Your task to perform on an android device: Search for Italian restaurants on Maps Image 0: 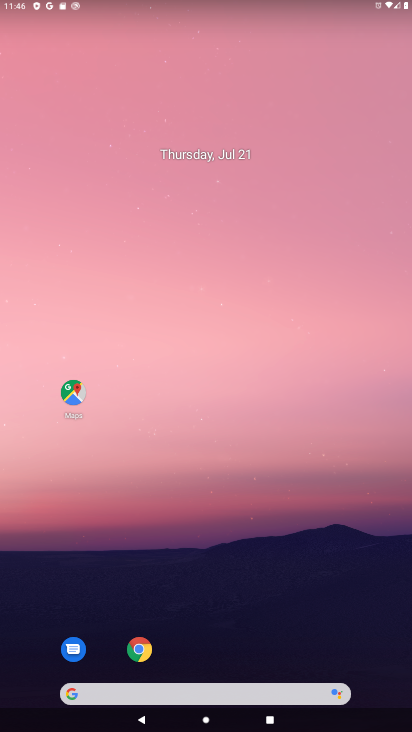
Step 0: drag from (295, 626) to (366, 98)
Your task to perform on an android device: Search for Italian restaurants on Maps Image 1: 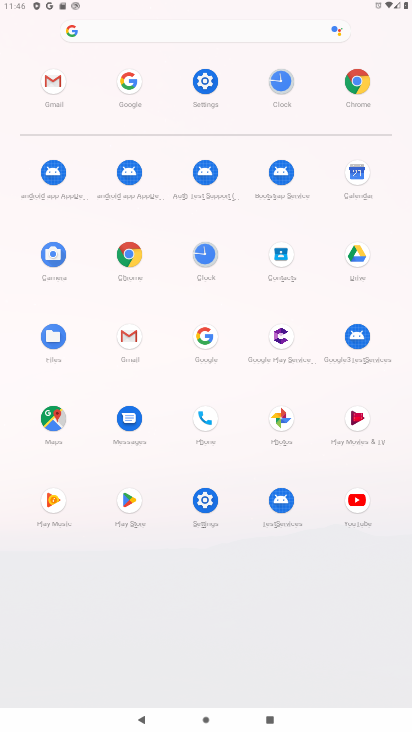
Step 1: click (56, 416)
Your task to perform on an android device: Search for Italian restaurants on Maps Image 2: 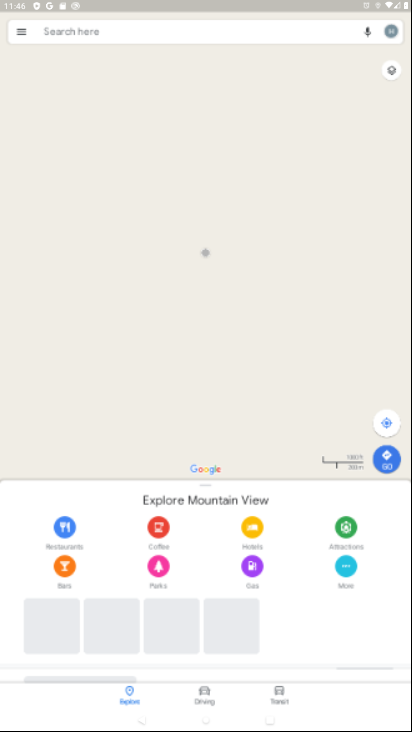
Step 2: click (183, 26)
Your task to perform on an android device: Search for Italian restaurants on Maps Image 3: 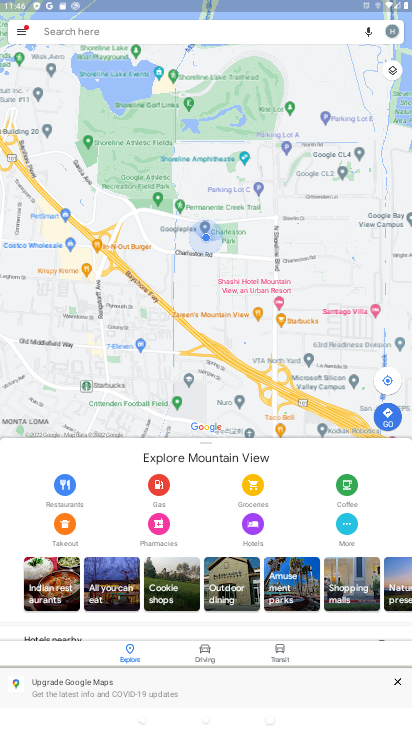
Step 3: click (300, 37)
Your task to perform on an android device: Search for Italian restaurants on Maps Image 4: 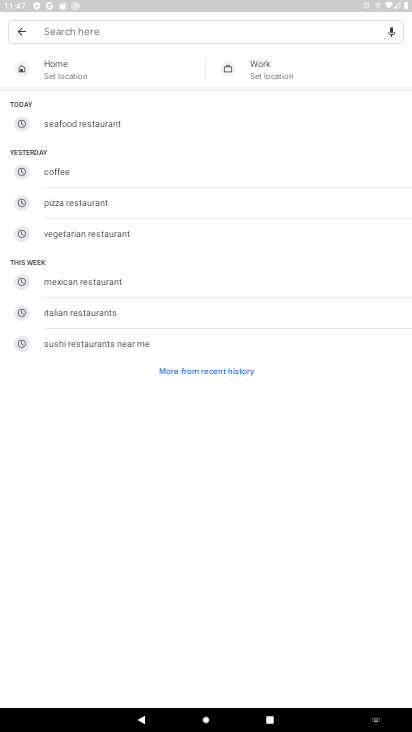
Step 4: type "Italian restaurants"
Your task to perform on an android device: Search for Italian restaurants on Maps Image 5: 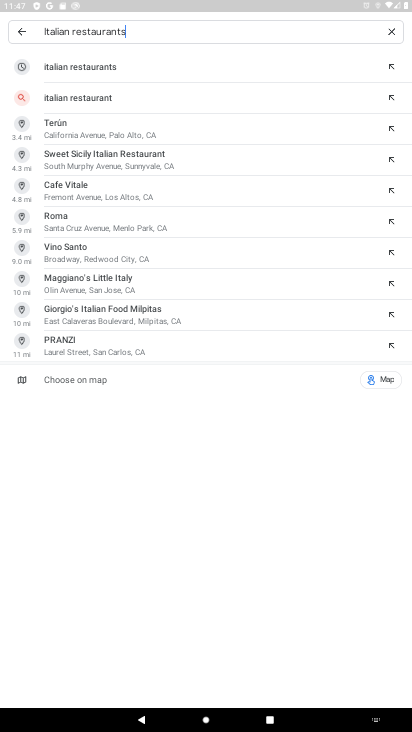
Step 5: click (181, 75)
Your task to perform on an android device: Search for Italian restaurants on Maps Image 6: 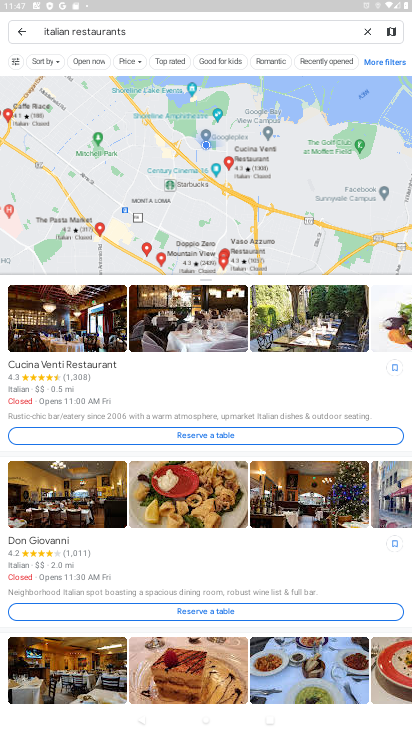
Step 6: task complete